Your task to perform on an android device: add a label to a message in the gmail app Image 0: 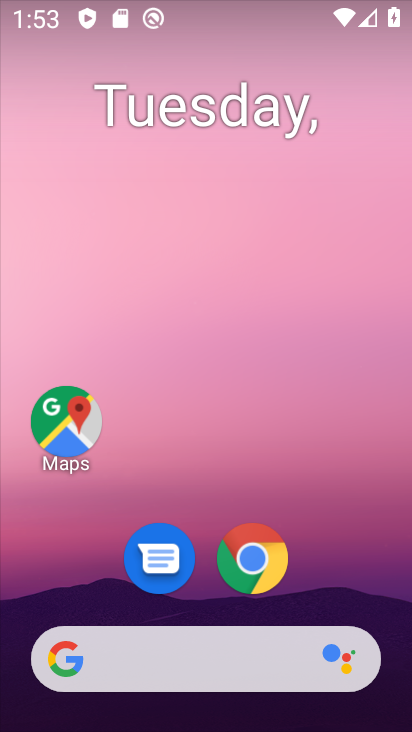
Step 0: drag from (210, 578) to (291, 38)
Your task to perform on an android device: add a label to a message in the gmail app Image 1: 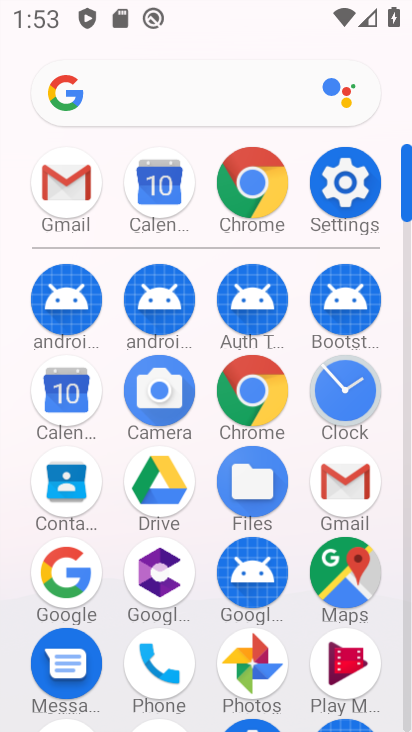
Step 1: click (341, 489)
Your task to perform on an android device: add a label to a message in the gmail app Image 2: 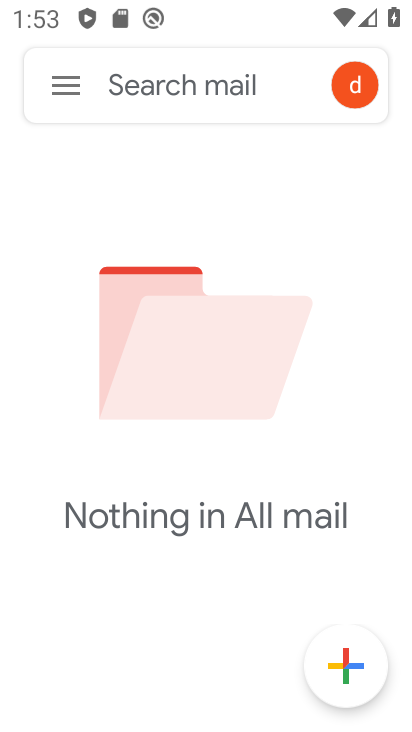
Step 2: task complete